Your task to perform on an android device: turn off data saver in the chrome app Image 0: 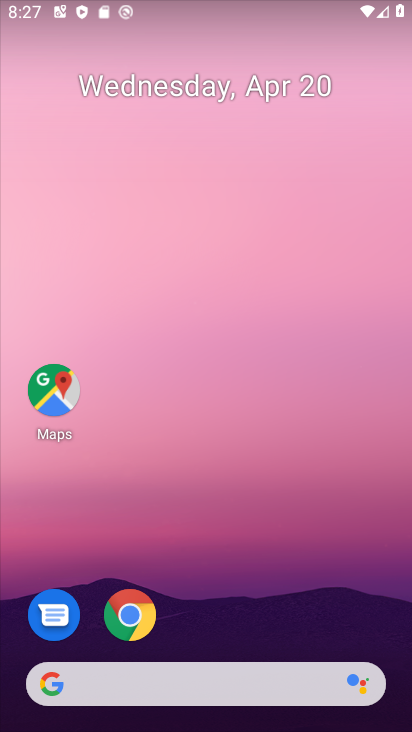
Step 0: click (130, 614)
Your task to perform on an android device: turn off data saver in the chrome app Image 1: 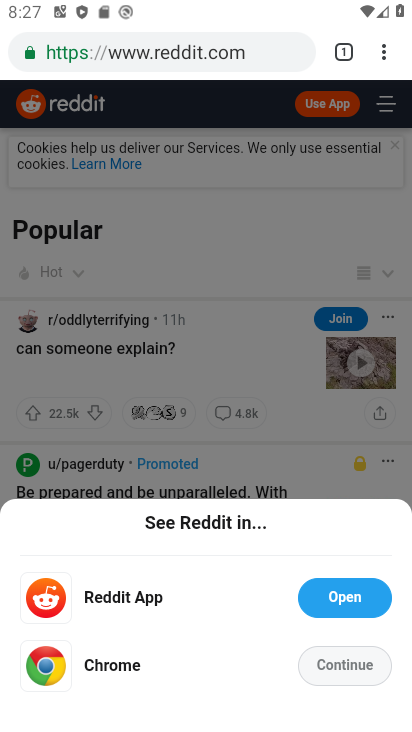
Step 1: click (386, 52)
Your task to perform on an android device: turn off data saver in the chrome app Image 2: 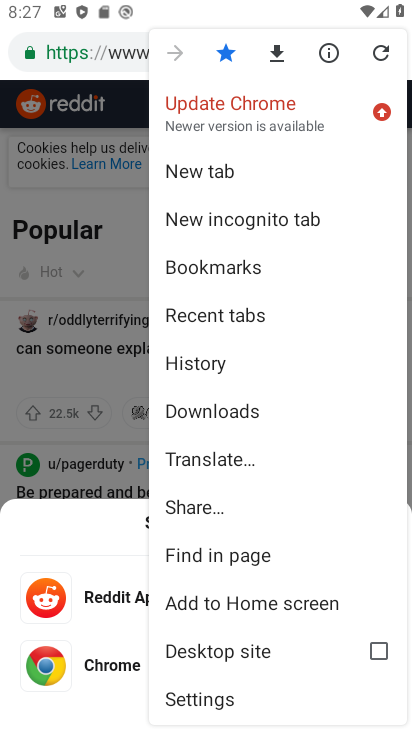
Step 2: click (210, 698)
Your task to perform on an android device: turn off data saver in the chrome app Image 3: 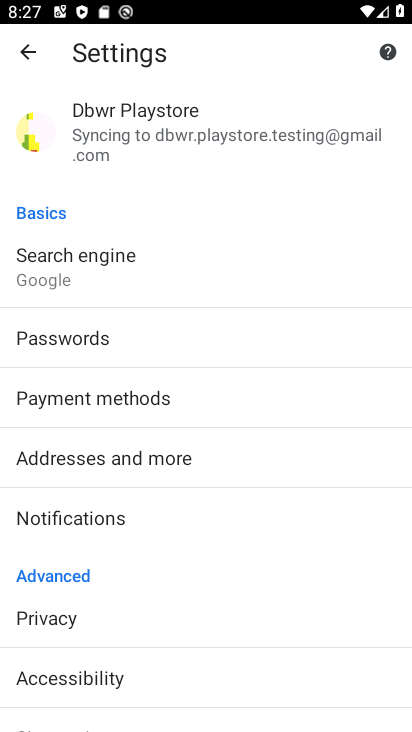
Step 3: drag from (140, 531) to (206, 446)
Your task to perform on an android device: turn off data saver in the chrome app Image 4: 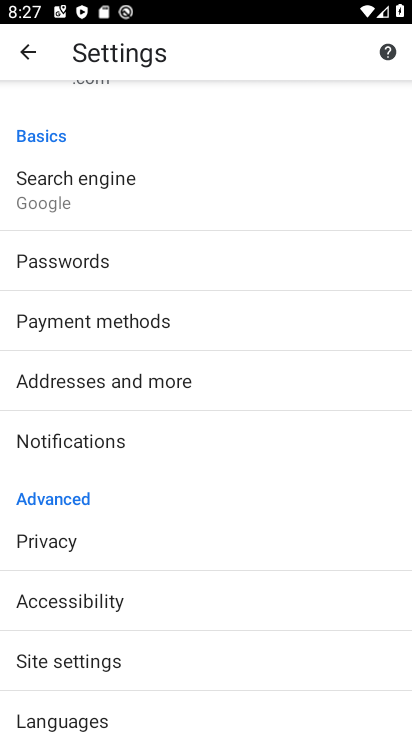
Step 4: drag from (156, 539) to (208, 458)
Your task to perform on an android device: turn off data saver in the chrome app Image 5: 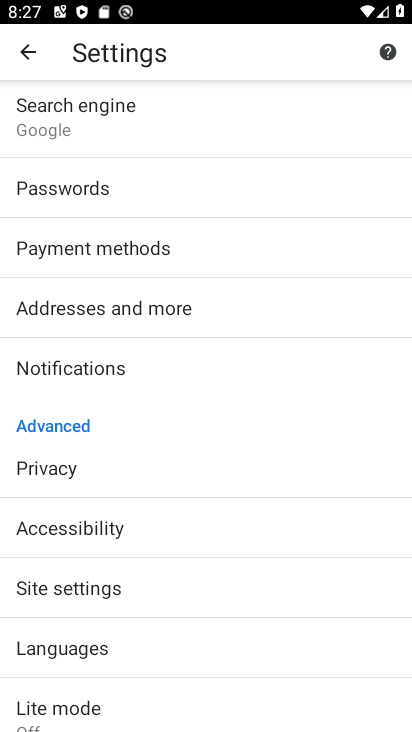
Step 5: drag from (181, 560) to (229, 467)
Your task to perform on an android device: turn off data saver in the chrome app Image 6: 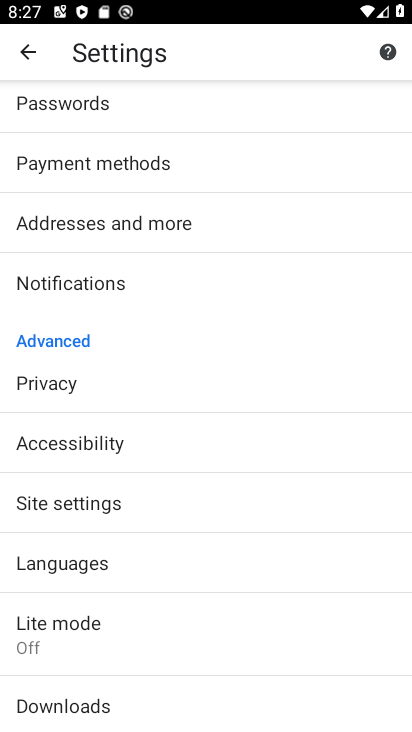
Step 6: click (113, 631)
Your task to perform on an android device: turn off data saver in the chrome app Image 7: 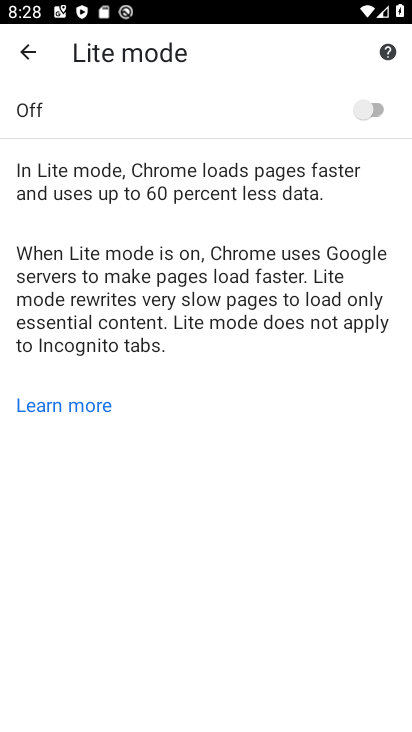
Step 7: task complete